Your task to perform on an android device: open the mobile data screen to see how much data has been used Image 0: 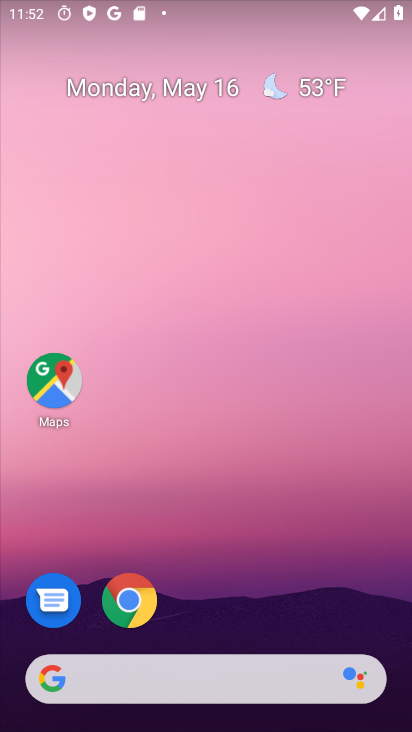
Step 0: drag from (307, 627) to (252, 57)
Your task to perform on an android device: open the mobile data screen to see how much data has been used Image 1: 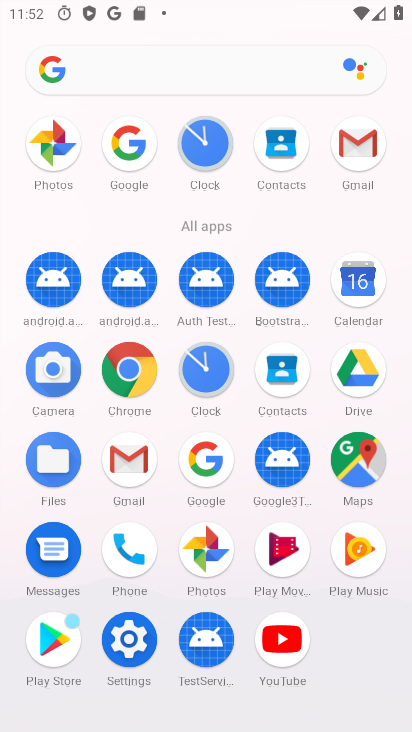
Step 1: click (107, 656)
Your task to perform on an android device: open the mobile data screen to see how much data has been used Image 2: 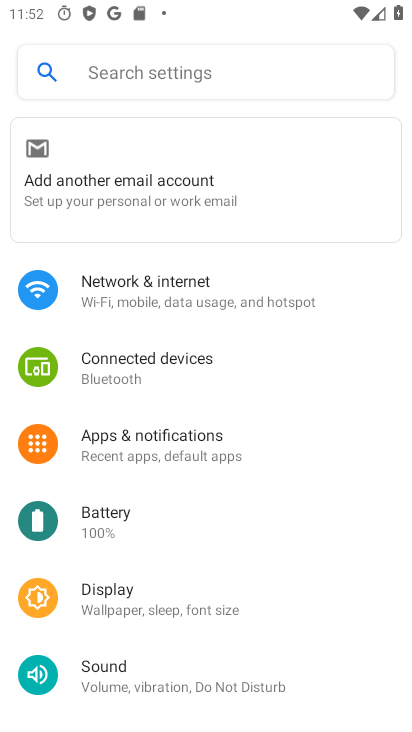
Step 2: click (167, 307)
Your task to perform on an android device: open the mobile data screen to see how much data has been used Image 3: 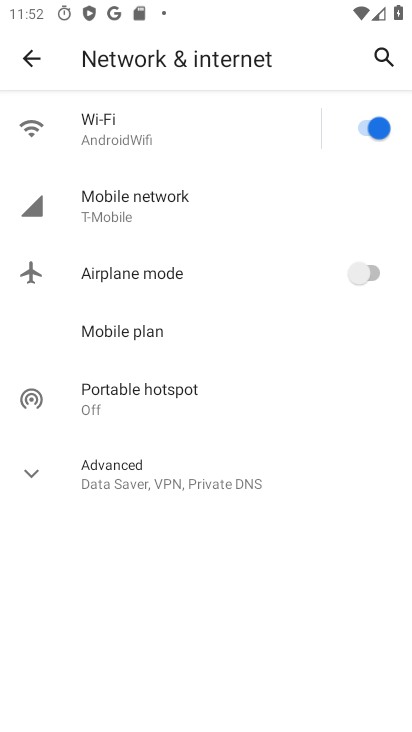
Step 3: click (98, 220)
Your task to perform on an android device: open the mobile data screen to see how much data has been used Image 4: 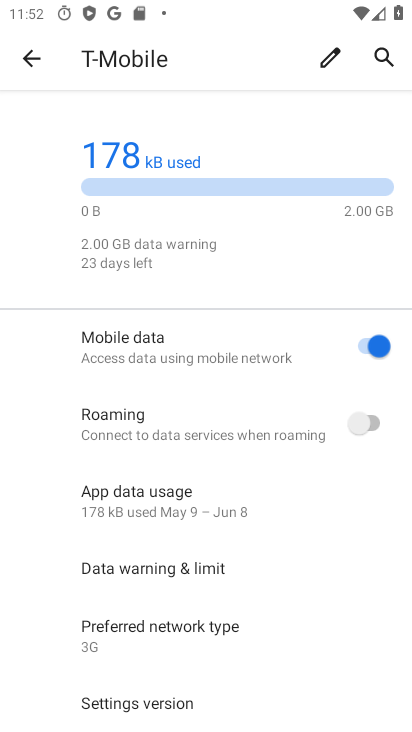
Step 4: click (128, 497)
Your task to perform on an android device: open the mobile data screen to see how much data has been used Image 5: 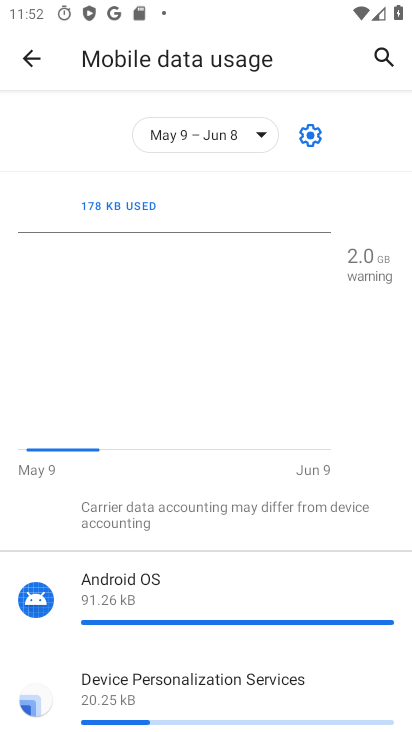
Step 5: task complete